Your task to perform on an android device: Show me the alarms in the clock app Image 0: 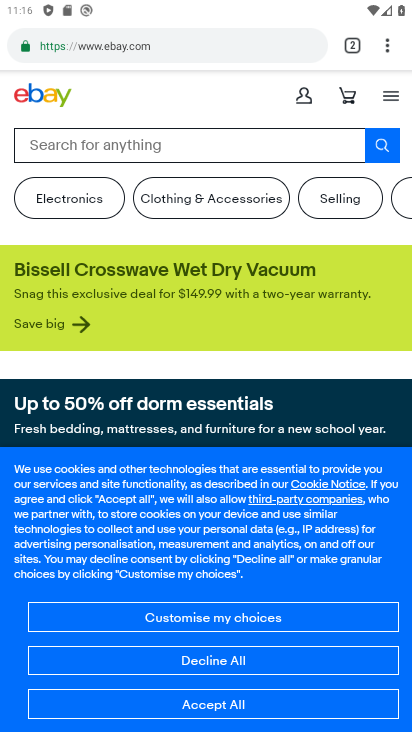
Step 0: press home button
Your task to perform on an android device: Show me the alarms in the clock app Image 1: 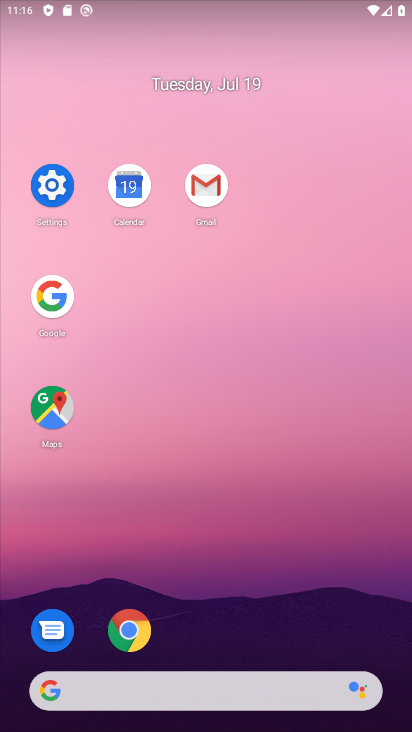
Step 1: drag from (183, 575) to (175, 203)
Your task to perform on an android device: Show me the alarms in the clock app Image 2: 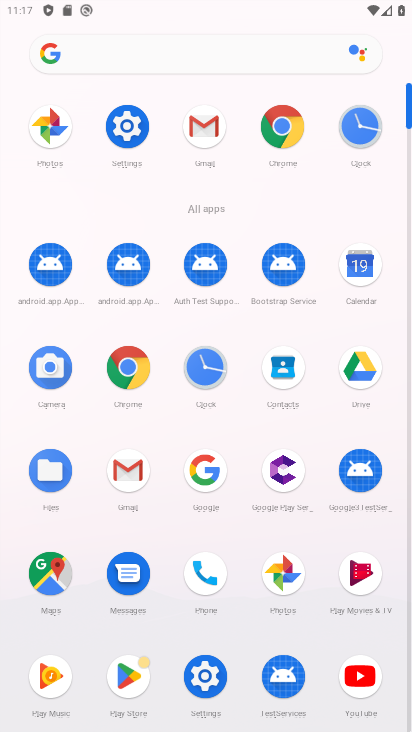
Step 2: drag from (364, 134) to (139, 310)
Your task to perform on an android device: Show me the alarms in the clock app Image 3: 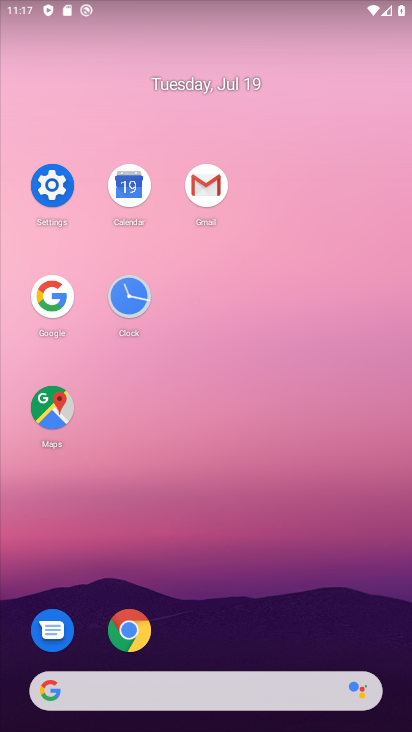
Step 3: click (136, 295)
Your task to perform on an android device: Show me the alarms in the clock app Image 4: 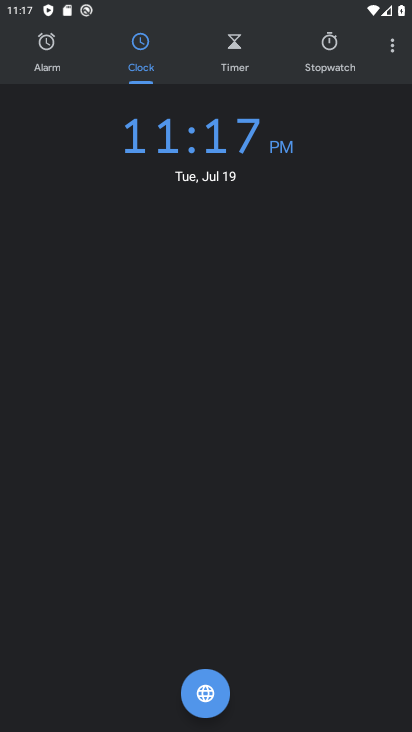
Step 4: click (52, 38)
Your task to perform on an android device: Show me the alarms in the clock app Image 5: 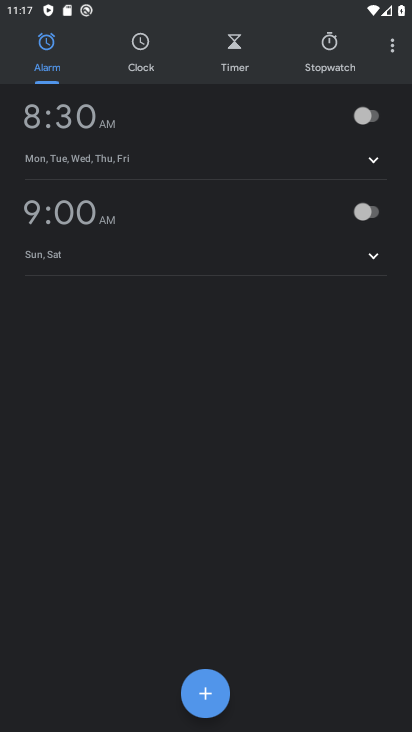
Step 5: task complete